Your task to perform on an android device: turn on wifi Image 0: 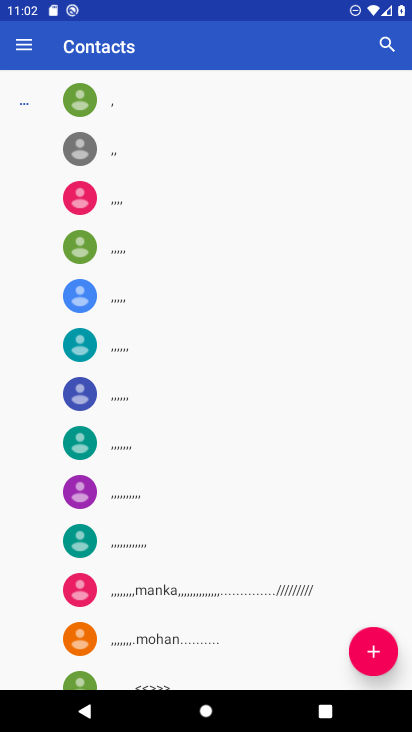
Step 0: press home button
Your task to perform on an android device: turn on wifi Image 1: 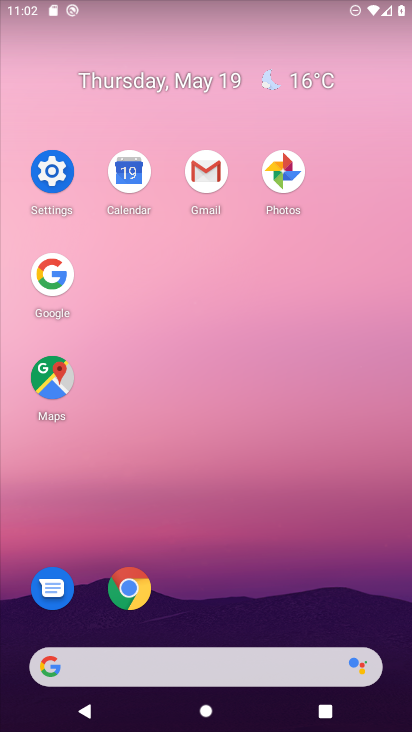
Step 1: click (38, 181)
Your task to perform on an android device: turn on wifi Image 2: 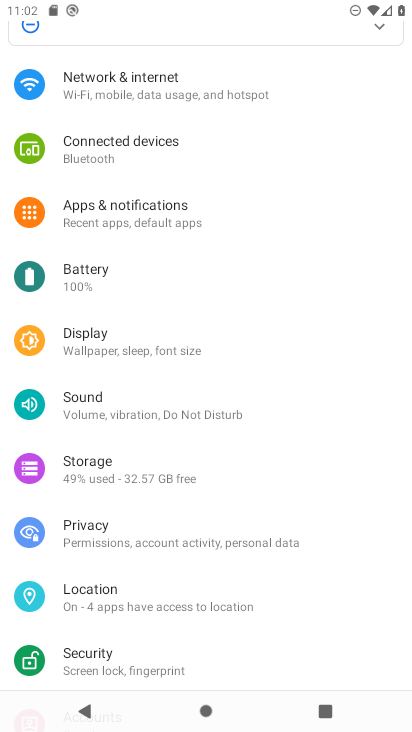
Step 2: click (247, 97)
Your task to perform on an android device: turn on wifi Image 3: 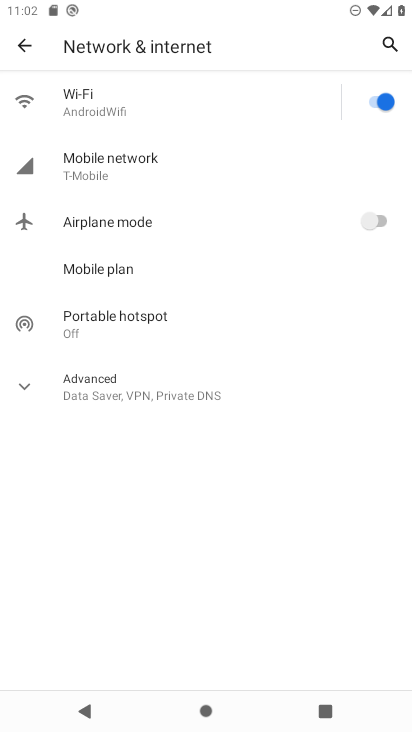
Step 3: task complete